Your task to perform on an android device: set the timer Image 0: 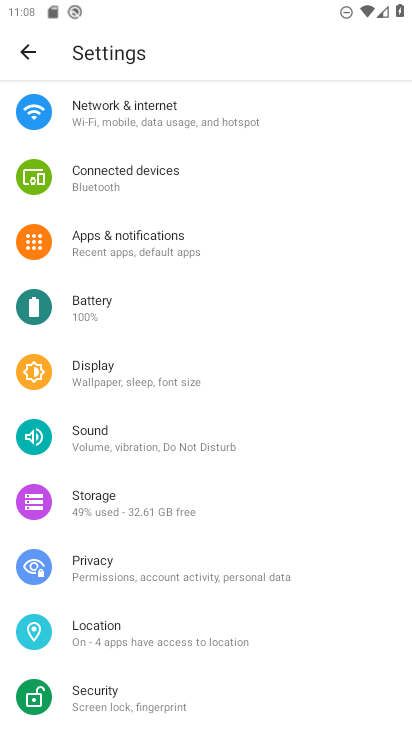
Step 0: press home button
Your task to perform on an android device: set the timer Image 1: 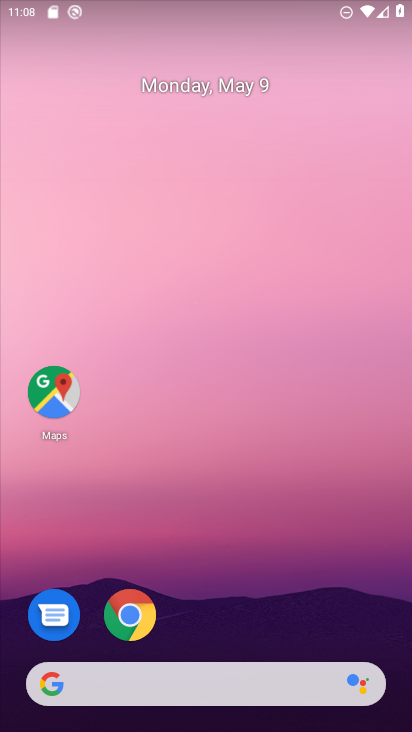
Step 1: drag from (216, 731) to (207, 210)
Your task to perform on an android device: set the timer Image 2: 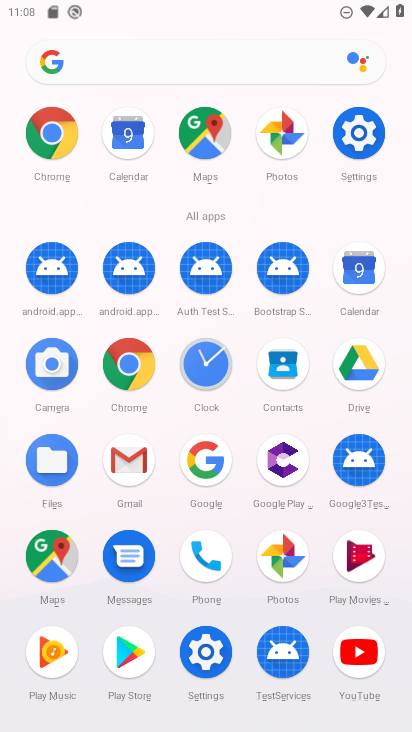
Step 2: click (203, 364)
Your task to perform on an android device: set the timer Image 3: 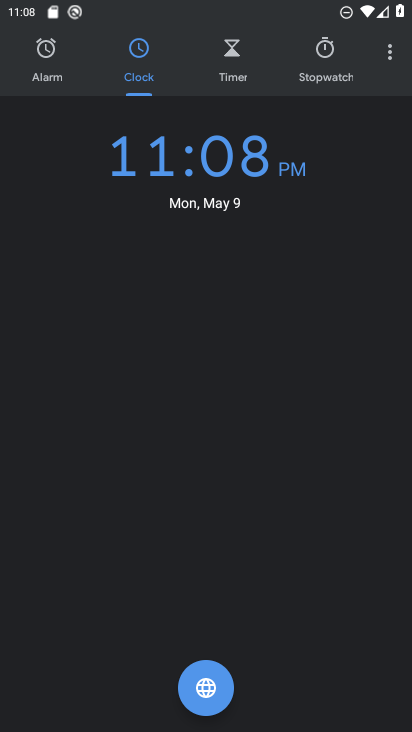
Step 3: click (228, 56)
Your task to perform on an android device: set the timer Image 4: 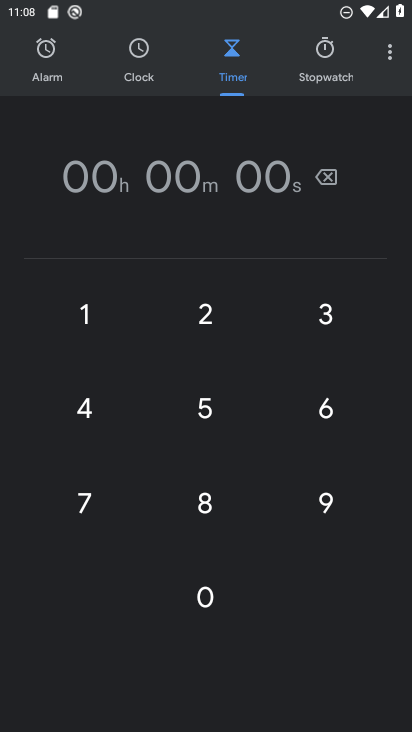
Step 4: click (207, 310)
Your task to perform on an android device: set the timer Image 5: 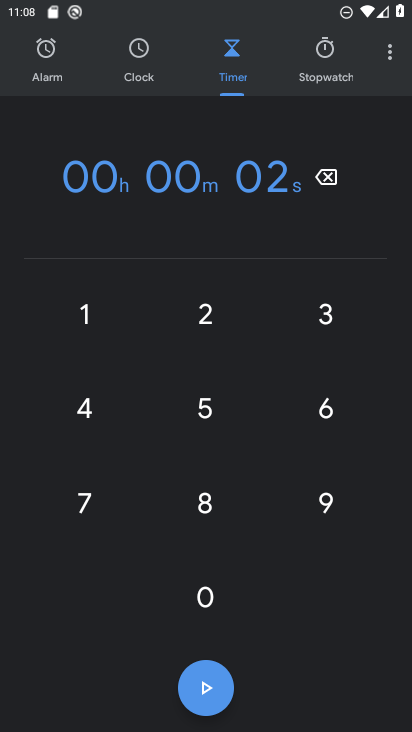
Step 5: click (197, 419)
Your task to perform on an android device: set the timer Image 6: 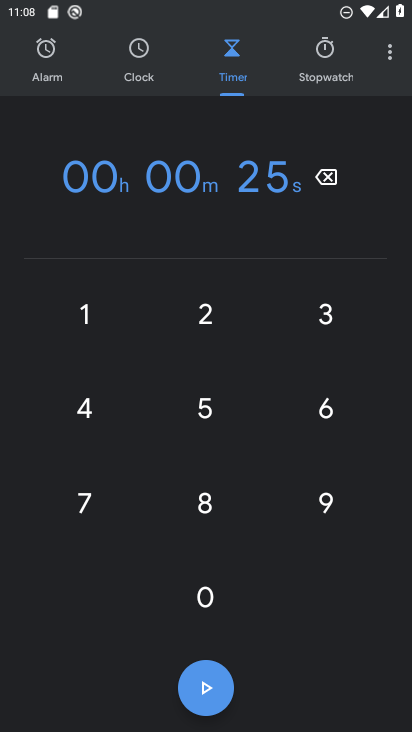
Step 6: click (76, 409)
Your task to perform on an android device: set the timer Image 7: 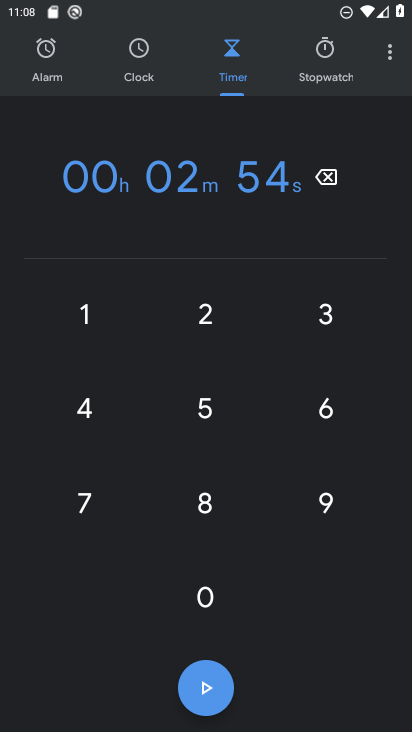
Step 7: click (211, 502)
Your task to perform on an android device: set the timer Image 8: 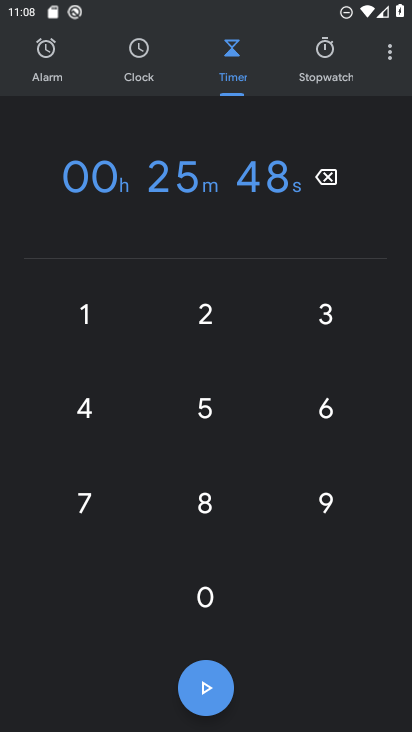
Step 8: click (211, 686)
Your task to perform on an android device: set the timer Image 9: 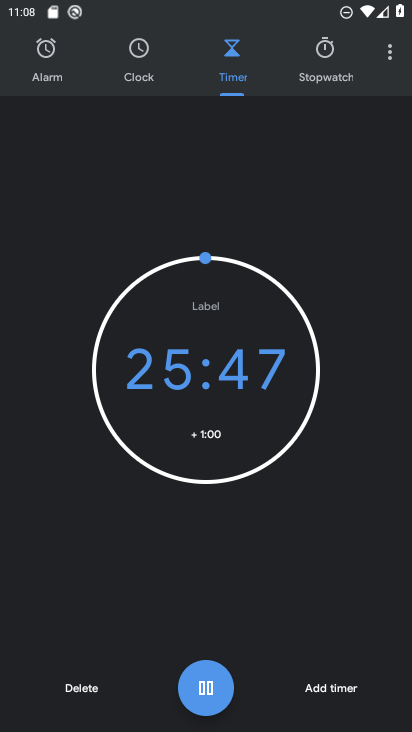
Step 9: click (209, 680)
Your task to perform on an android device: set the timer Image 10: 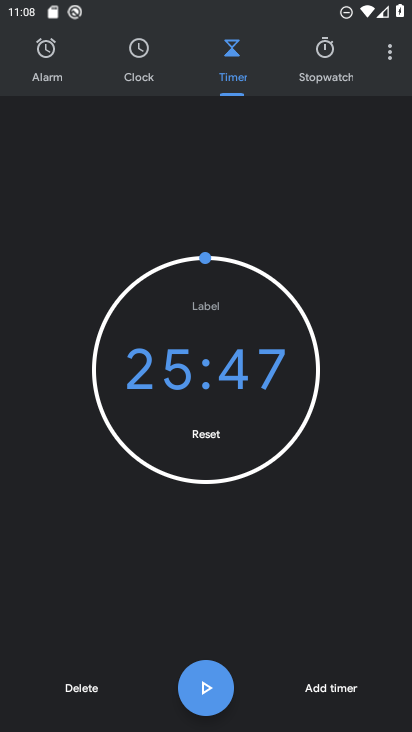
Step 10: task complete